Your task to perform on an android device: Open Chrome and go to the settings page Image 0: 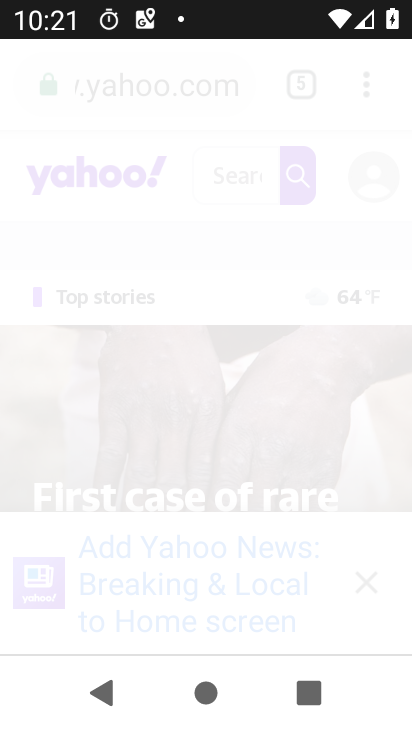
Step 0: drag from (311, 545) to (245, 113)
Your task to perform on an android device: Open Chrome and go to the settings page Image 1: 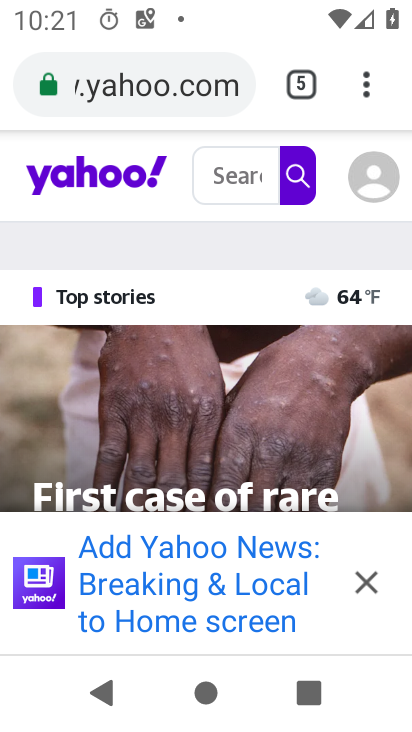
Step 1: press home button
Your task to perform on an android device: Open Chrome and go to the settings page Image 2: 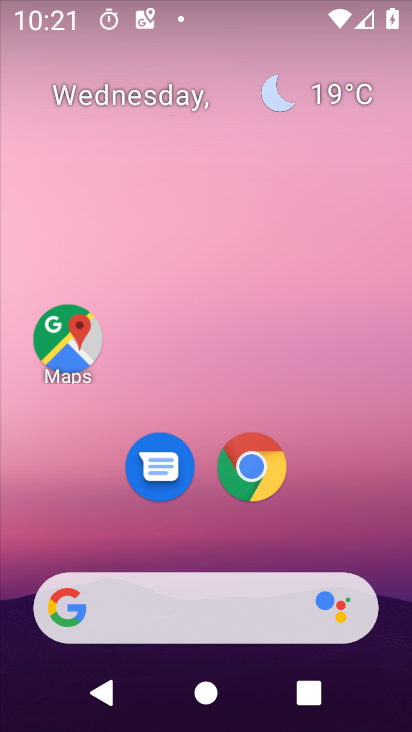
Step 2: drag from (305, 519) to (237, 62)
Your task to perform on an android device: Open Chrome and go to the settings page Image 3: 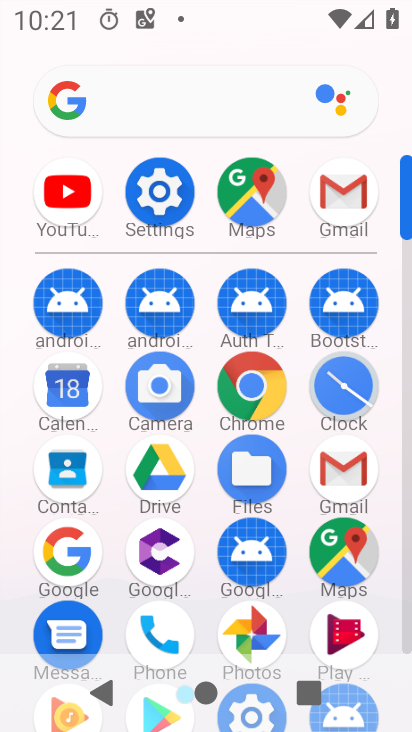
Step 3: click (155, 198)
Your task to perform on an android device: Open Chrome and go to the settings page Image 4: 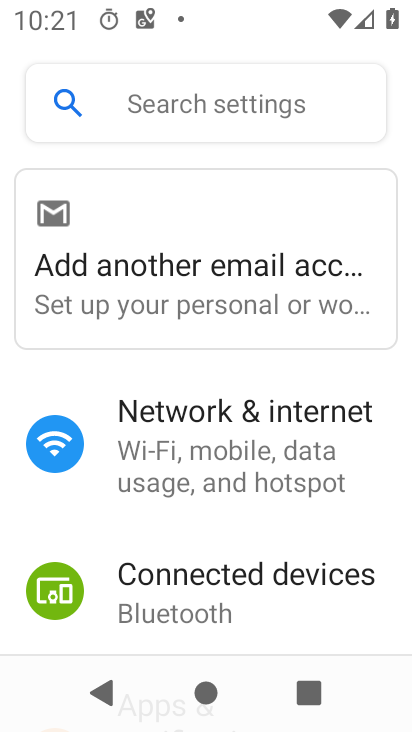
Step 4: press home button
Your task to perform on an android device: Open Chrome and go to the settings page Image 5: 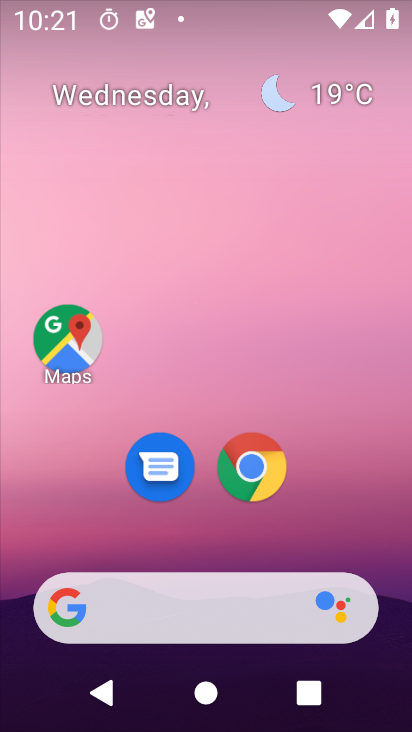
Step 5: click (252, 466)
Your task to perform on an android device: Open Chrome and go to the settings page Image 6: 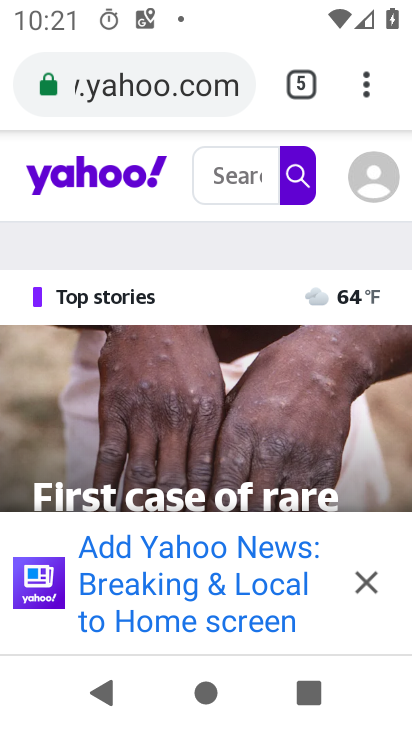
Step 6: click (296, 85)
Your task to perform on an android device: Open Chrome and go to the settings page Image 7: 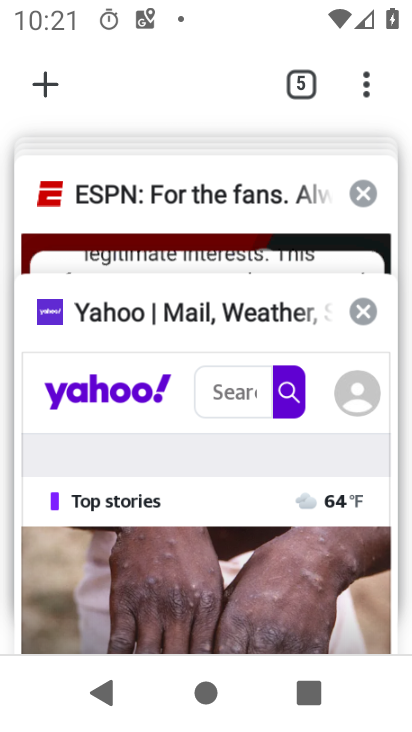
Step 7: click (303, 72)
Your task to perform on an android device: Open Chrome and go to the settings page Image 8: 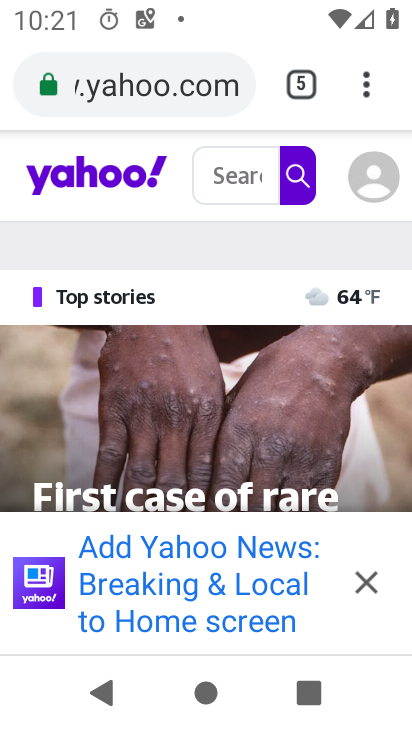
Step 8: click (367, 80)
Your task to perform on an android device: Open Chrome and go to the settings page Image 9: 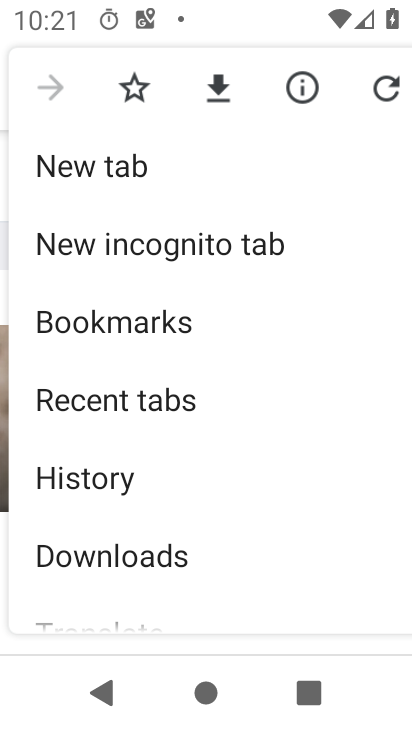
Step 9: drag from (235, 404) to (186, 69)
Your task to perform on an android device: Open Chrome and go to the settings page Image 10: 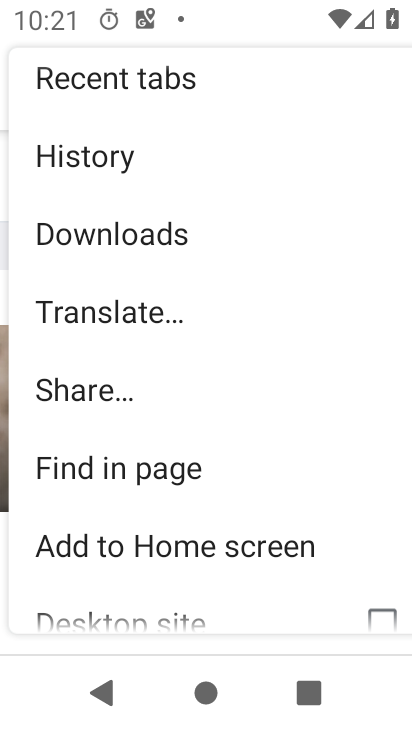
Step 10: drag from (200, 564) to (198, 197)
Your task to perform on an android device: Open Chrome and go to the settings page Image 11: 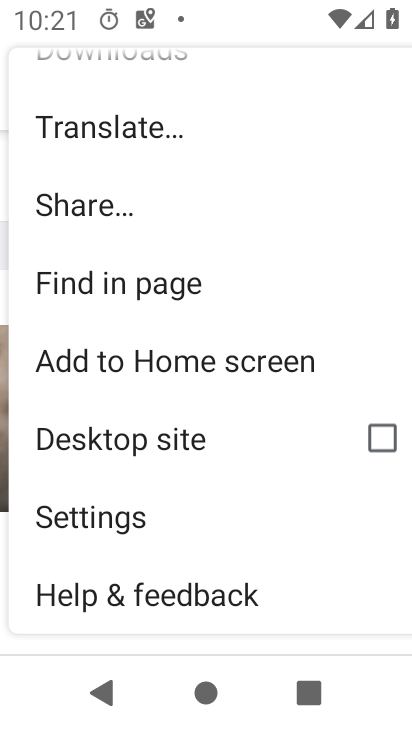
Step 11: click (165, 506)
Your task to perform on an android device: Open Chrome and go to the settings page Image 12: 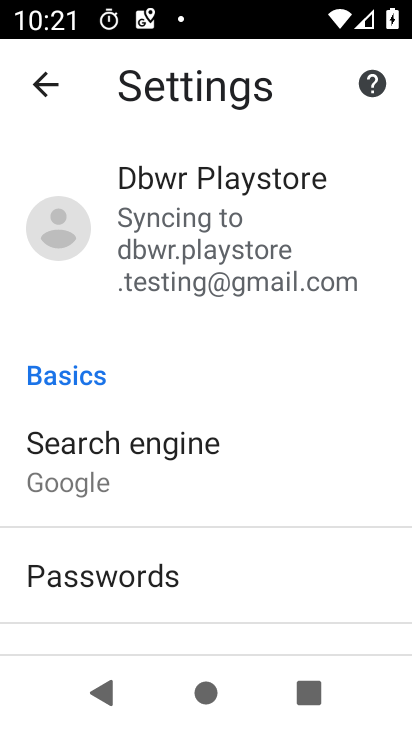
Step 12: task complete